Your task to perform on an android device: Go to Yahoo.com Image 0: 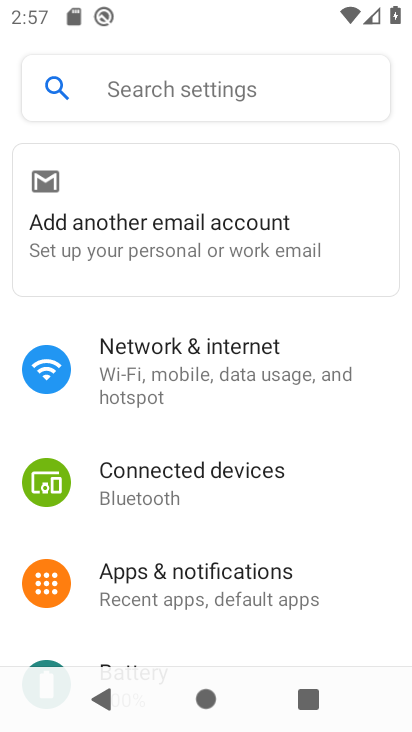
Step 0: press home button
Your task to perform on an android device: Go to Yahoo.com Image 1: 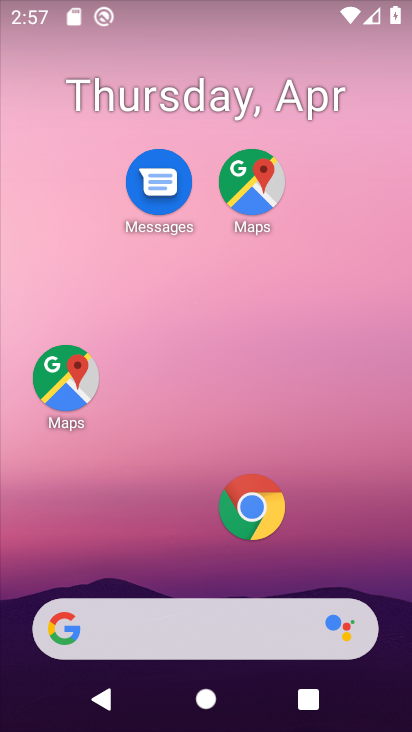
Step 1: click (268, 511)
Your task to perform on an android device: Go to Yahoo.com Image 2: 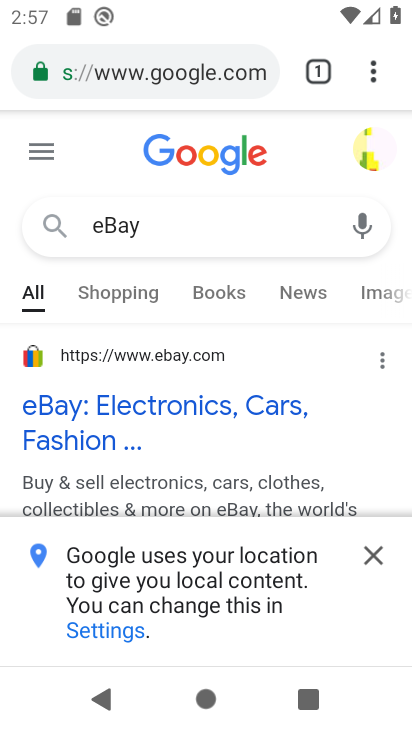
Step 2: click (381, 558)
Your task to perform on an android device: Go to Yahoo.com Image 3: 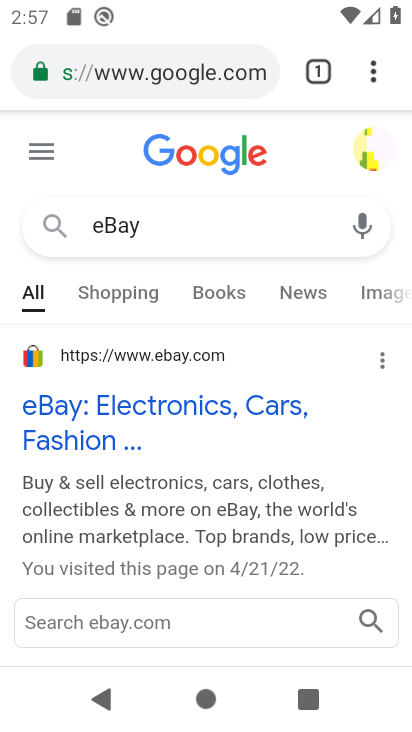
Step 3: click (151, 77)
Your task to perform on an android device: Go to Yahoo.com Image 4: 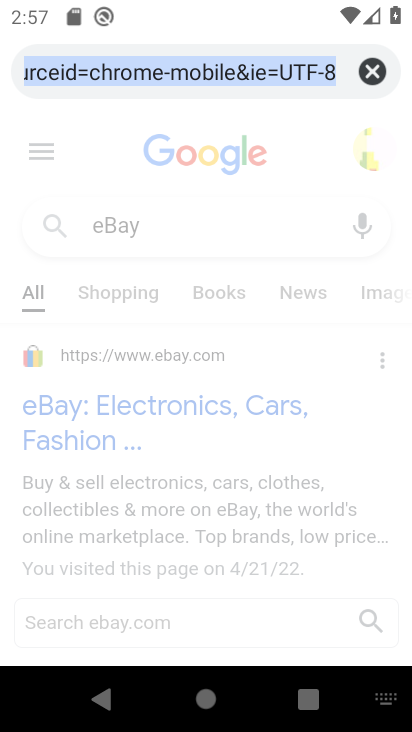
Step 4: type "yahoo.com"
Your task to perform on an android device: Go to Yahoo.com Image 5: 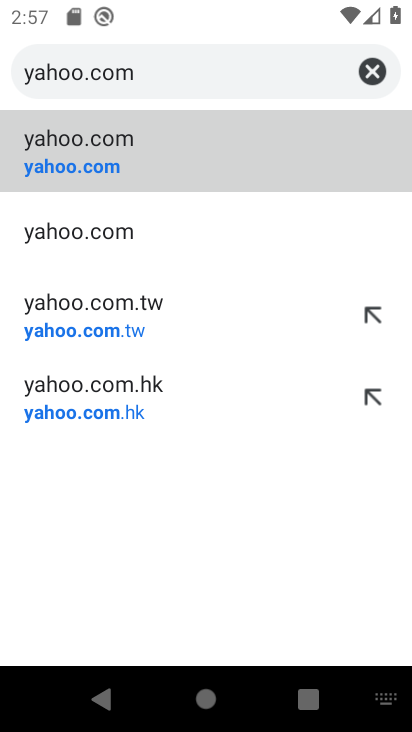
Step 5: click (86, 150)
Your task to perform on an android device: Go to Yahoo.com Image 6: 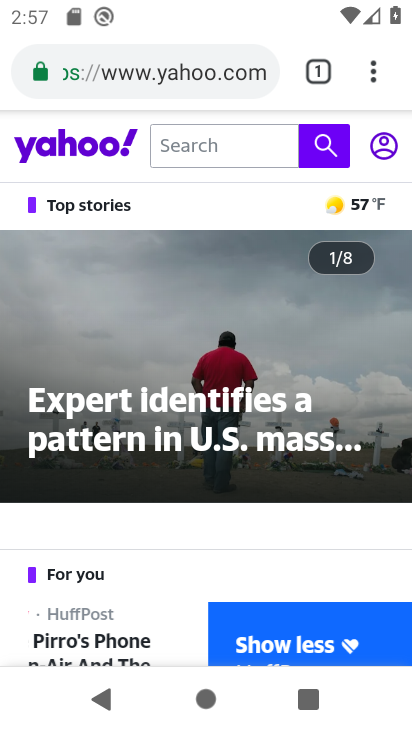
Step 6: task complete